Your task to perform on an android device: change the clock display to digital Image 0: 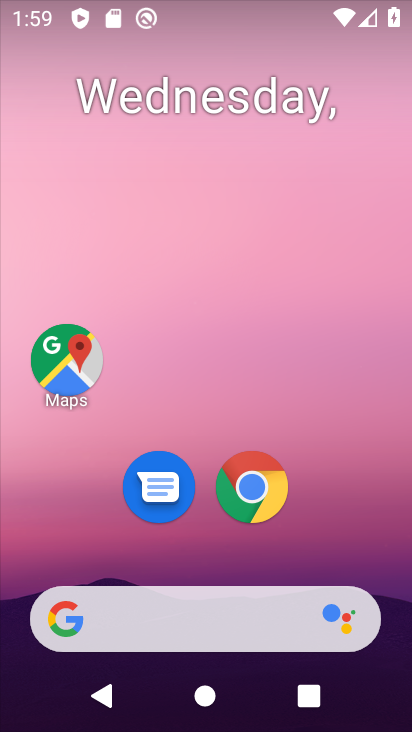
Step 0: drag from (332, 525) to (238, 116)
Your task to perform on an android device: change the clock display to digital Image 1: 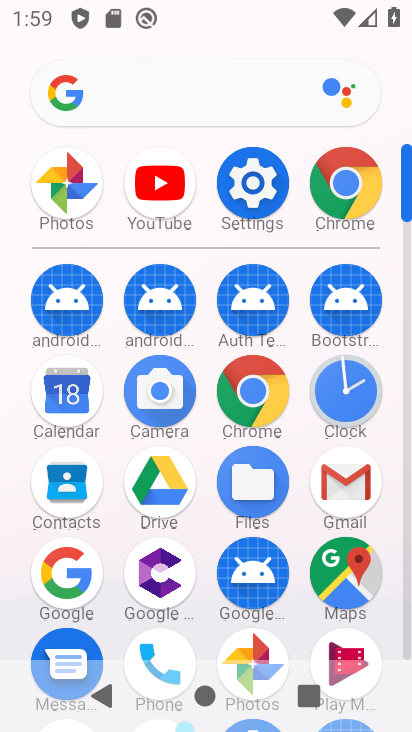
Step 1: click (342, 404)
Your task to perform on an android device: change the clock display to digital Image 2: 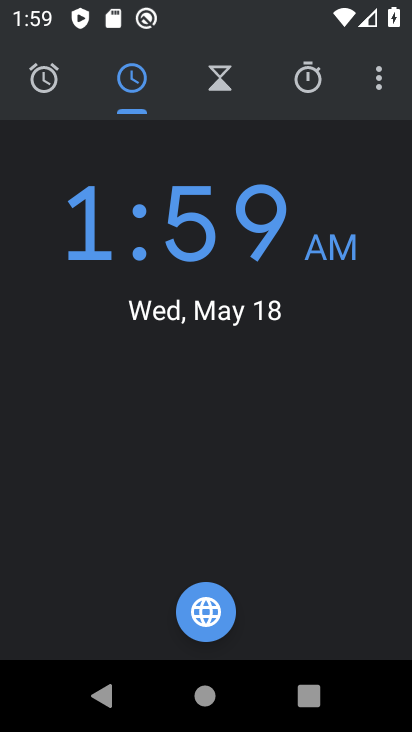
Step 2: click (372, 79)
Your task to perform on an android device: change the clock display to digital Image 3: 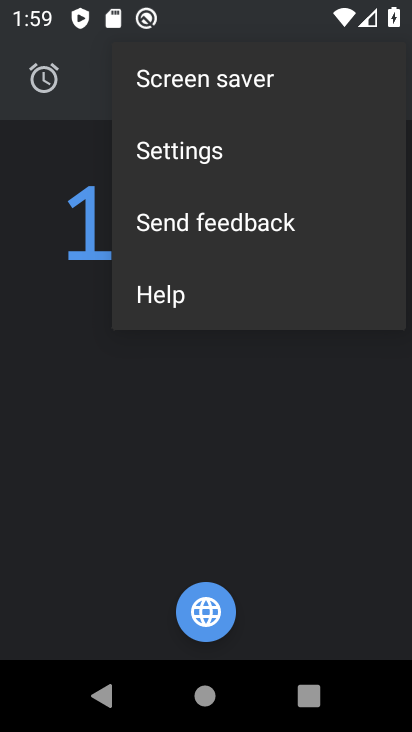
Step 3: click (198, 148)
Your task to perform on an android device: change the clock display to digital Image 4: 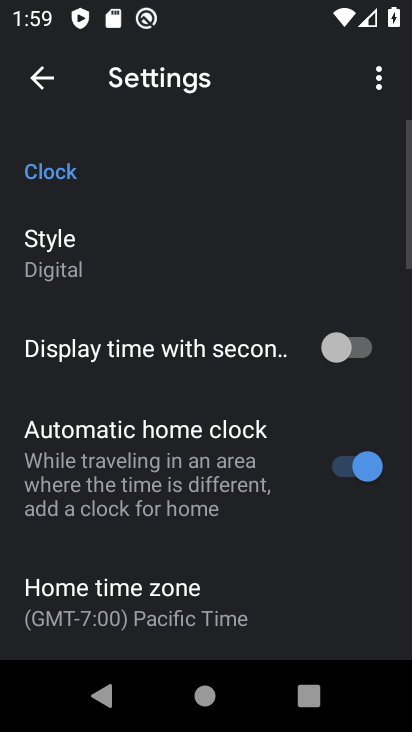
Step 4: click (50, 243)
Your task to perform on an android device: change the clock display to digital Image 5: 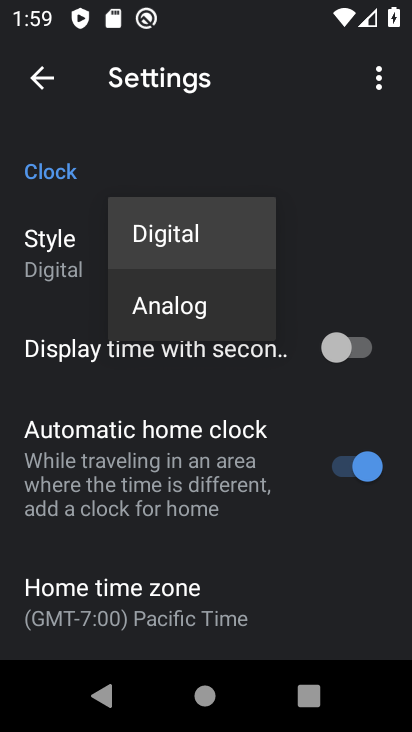
Step 5: task complete